Your task to perform on an android device: turn vacation reply on in the gmail app Image 0: 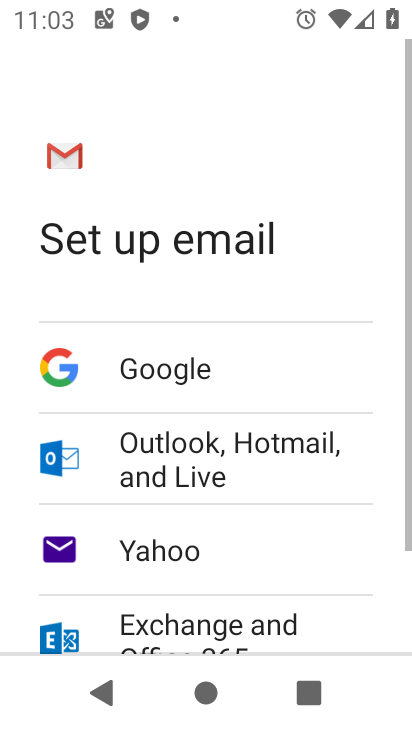
Step 0: press home button
Your task to perform on an android device: turn vacation reply on in the gmail app Image 1: 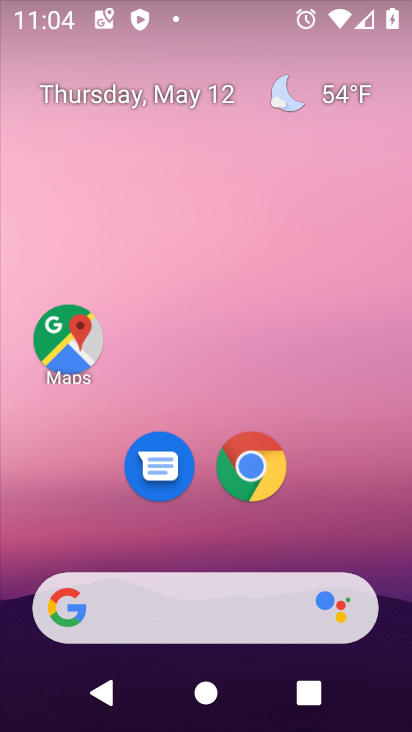
Step 1: drag from (353, 556) to (380, 168)
Your task to perform on an android device: turn vacation reply on in the gmail app Image 2: 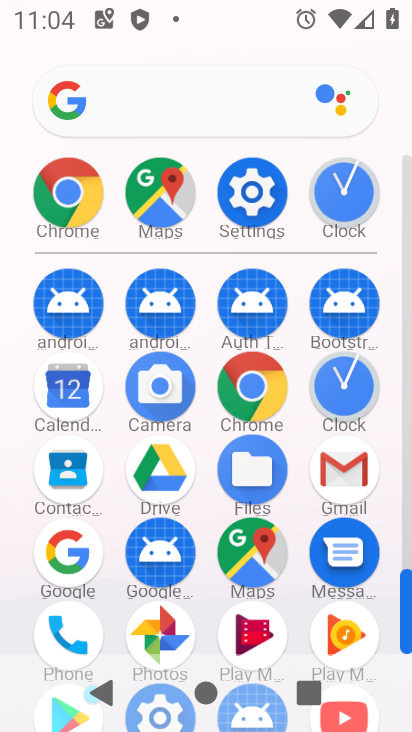
Step 2: click (337, 487)
Your task to perform on an android device: turn vacation reply on in the gmail app Image 3: 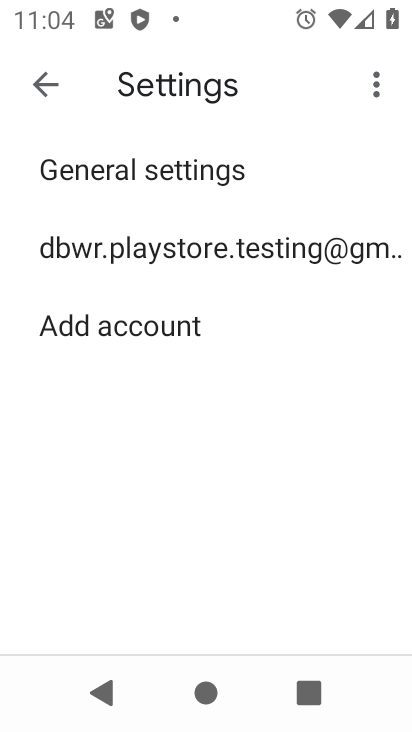
Step 3: click (241, 252)
Your task to perform on an android device: turn vacation reply on in the gmail app Image 4: 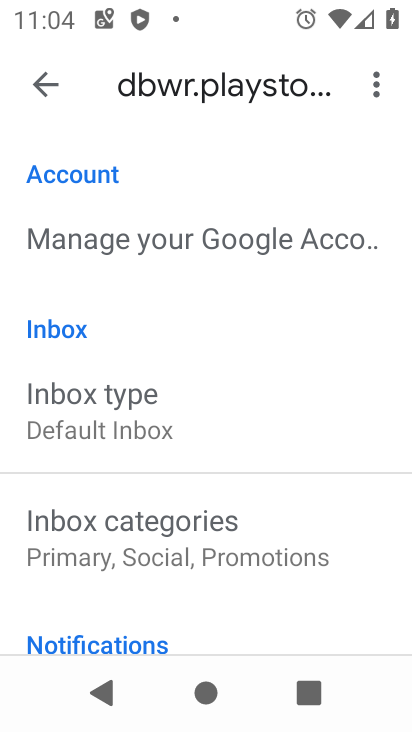
Step 4: task complete